Your task to perform on an android device: Search for vegetarian restaurants on Maps Image 0: 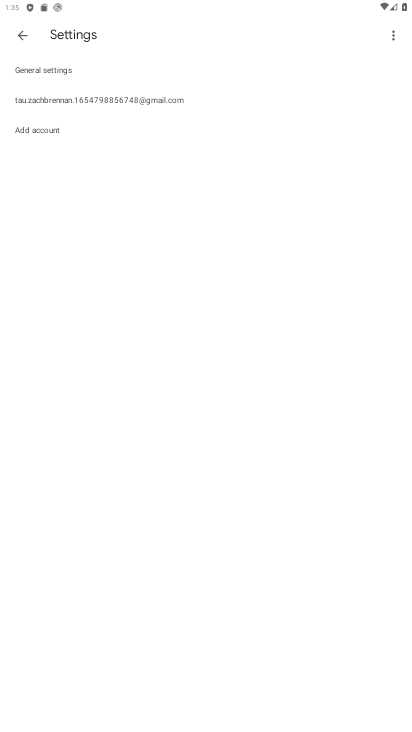
Step 0: press home button
Your task to perform on an android device: Search for vegetarian restaurants on Maps Image 1: 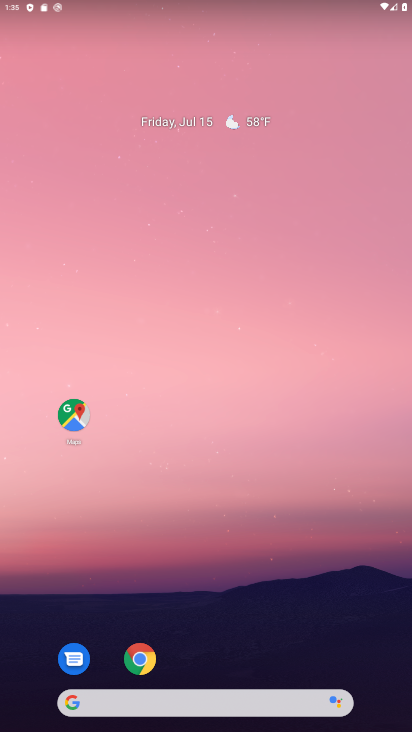
Step 1: click (76, 412)
Your task to perform on an android device: Search for vegetarian restaurants on Maps Image 2: 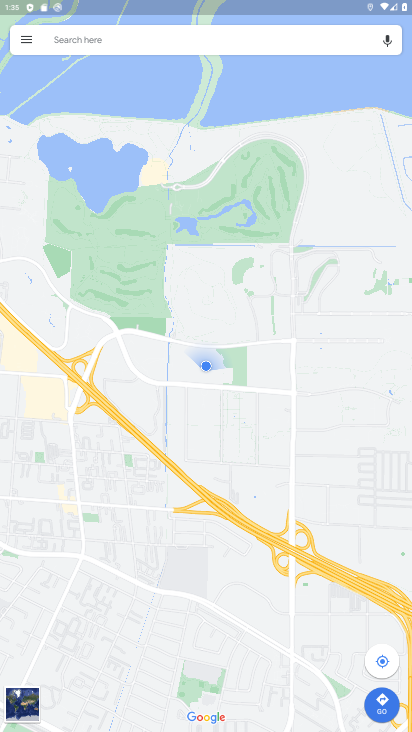
Step 2: click (144, 38)
Your task to perform on an android device: Search for vegetarian restaurants on Maps Image 3: 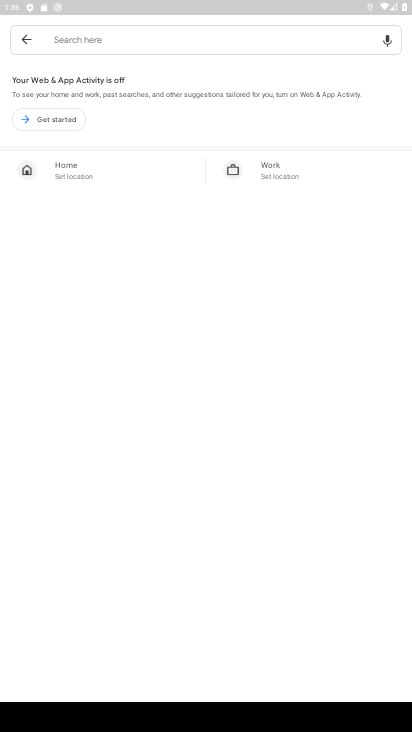
Step 3: type "vegetarian restaurants"
Your task to perform on an android device: Search for vegetarian restaurants on Maps Image 4: 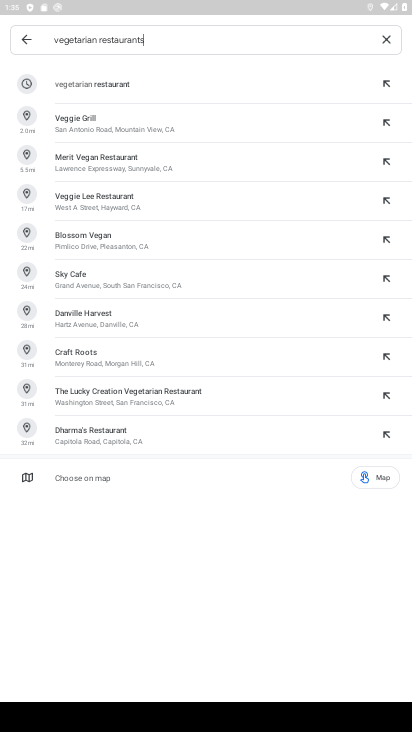
Step 4: click (228, 78)
Your task to perform on an android device: Search for vegetarian restaurants on Maps Image 5: 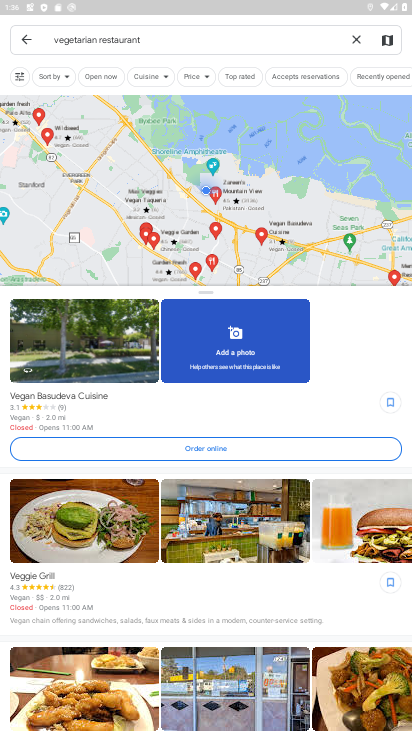
Step 5: task complete